Your task to perform on an android device: Show me the best rated coffee table on Ikea Image 0: 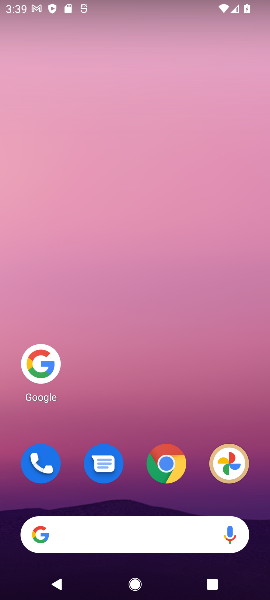
Step 0: click (47, 355)
Your task to perform on an android device: Show me the best rated coffee table on Ikea Image 1: 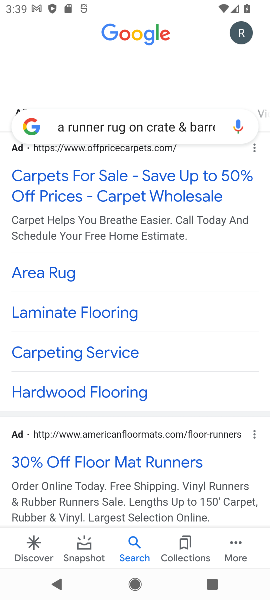
Step 1: click (163, 117)
Your task to perform on an android device: Show me the best rated coffee table on Ikea Image 2: 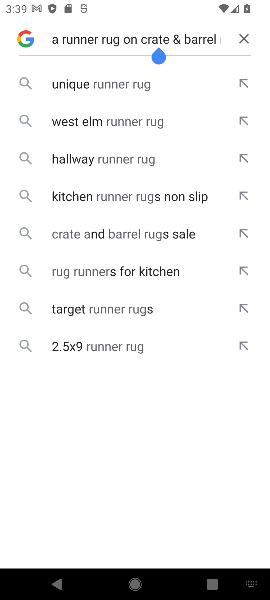
Step 2: click (242, 38)
Your task to perform on an android device: Show me the best rated coffee table on Ikea Image 3: 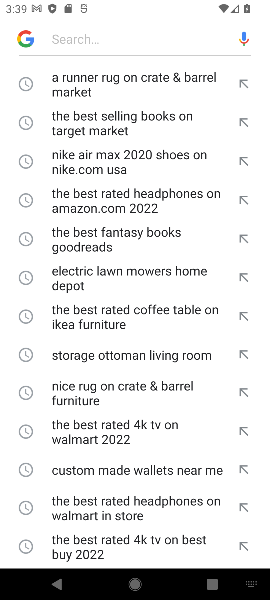
Step 3: click (93, 37)
Your task to perform on an android device: Show me the best rated coffee table on Ikea Image 4: 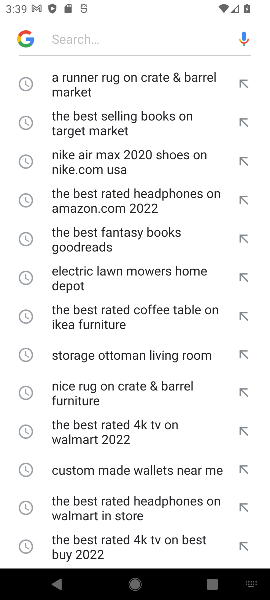
Step 4: type "the best rated coffee table on Ikea "
Your task to perform on an android device: Show me the best rated coffee table on Ikea Image 5: 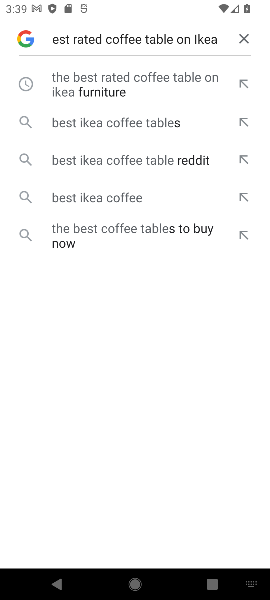
Step 5: click (103, 90)
Your task to perform on an android device: Show me the best rated coffee table on Ikea Image 6: 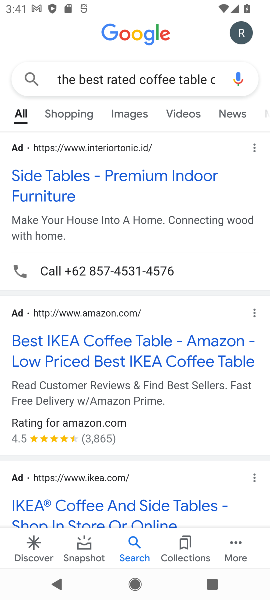
Step 6: click (85, 174)
Your task to perform on an android device: Show me the best rated coffee table on Ikea Image 7: 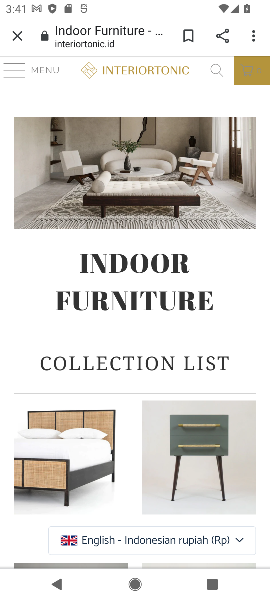
Step 7: task complete